Your task to perform on an android device: show emergency info Image 0: 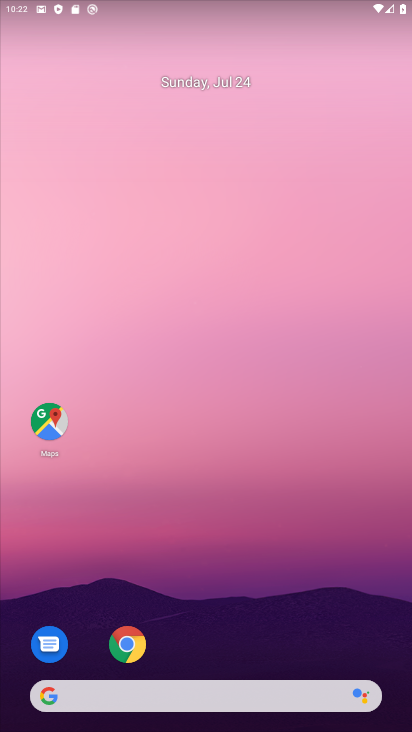
Step 0: drag from (232, 643) to (248, 35)
Your task to perform on an android device: show emergency info Image 1: 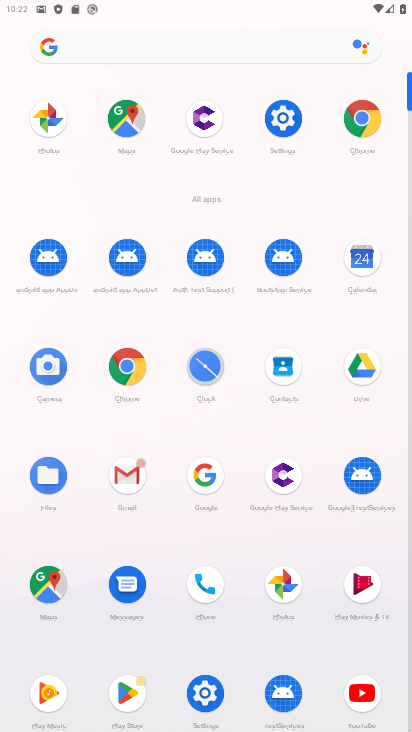
Step 1: click (282, 117)
Your task to perform on an android device: show emergency info Image 2: 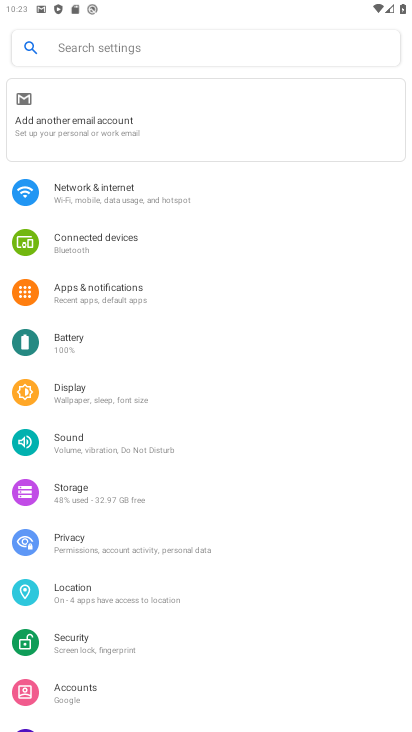
Step 2: drag from (140, 712) to (85, 196)
Your task to perform on an android device: show emergency info Image 3: 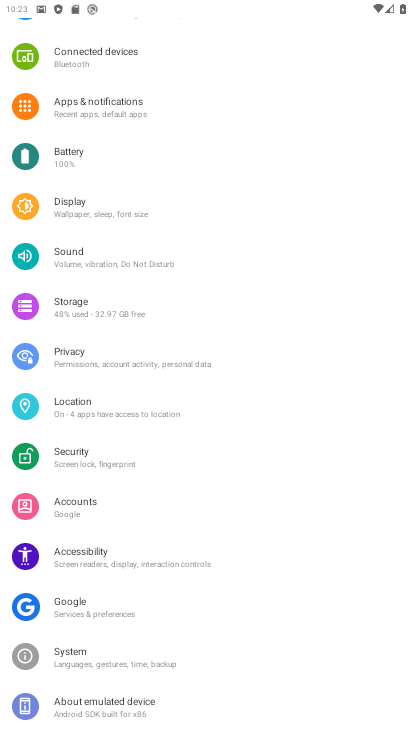
Step 3: click (116, 703)
Your task to perform on an android device: show emergency info Image 4: 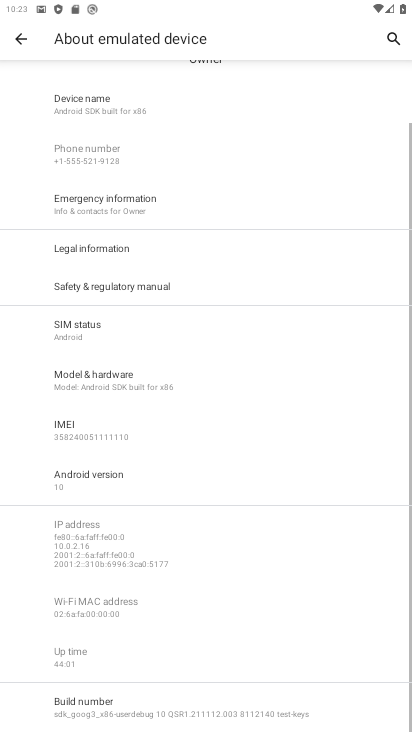
Step 4: click (141, 215)
Your task to perform on an android device: show emergency info Image 5: 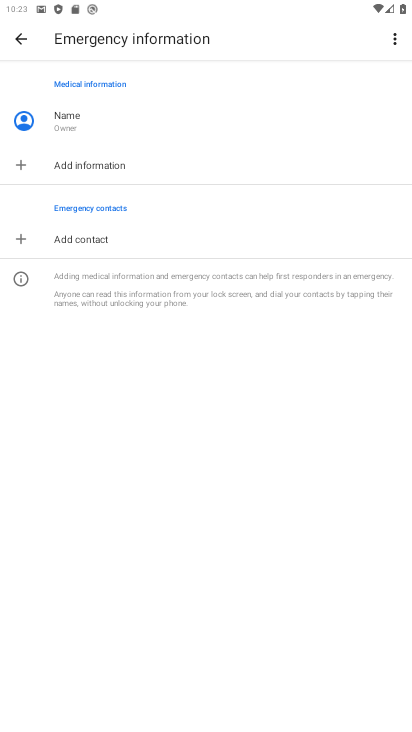
Step 5: task complete